Your task to perform on an android device: manage bookmarks in the chrome app Image 0: 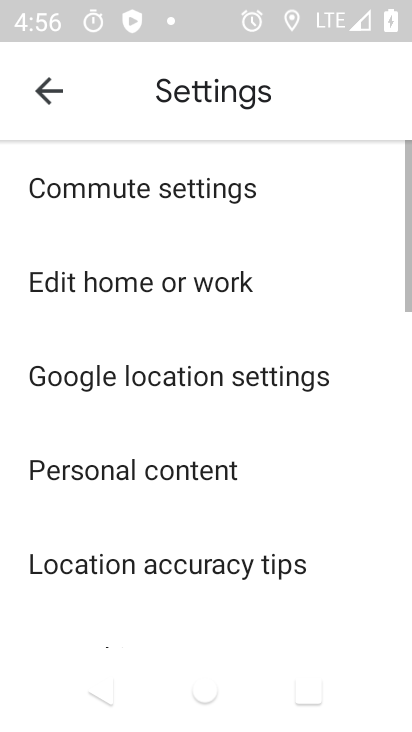
Step 0: press home button
Your task to perform on an android device: manage bookmarks in the chrome app Image 1: 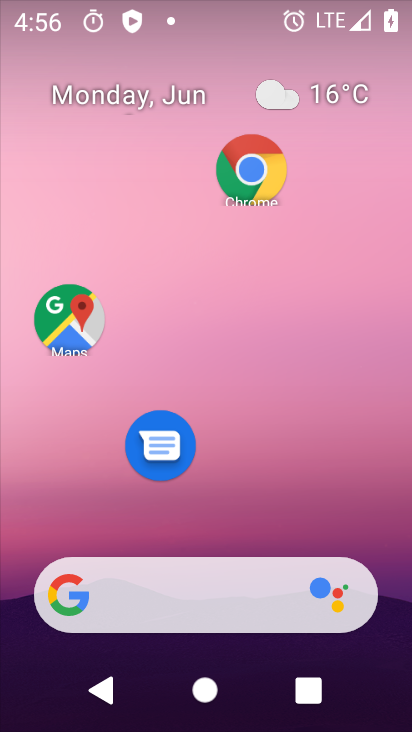
Step 1: click (254, 170)
Your task to perform on an android device: manage bookmarks in the chrome app Image 2: 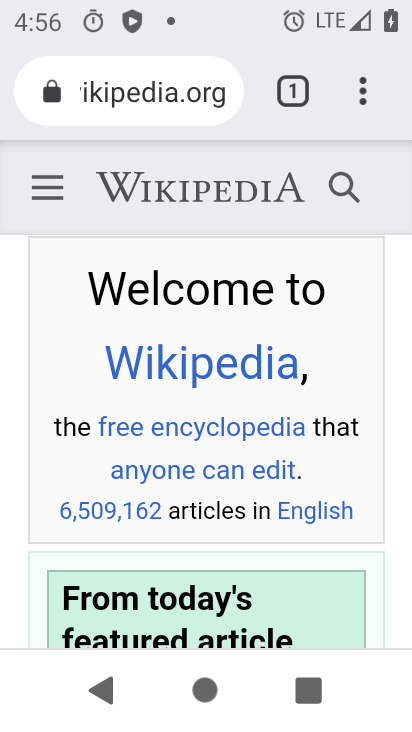
Step 2: click (363, 101)
Your task to perform on an android device: manage bookmarks in the chrome app Image 3: 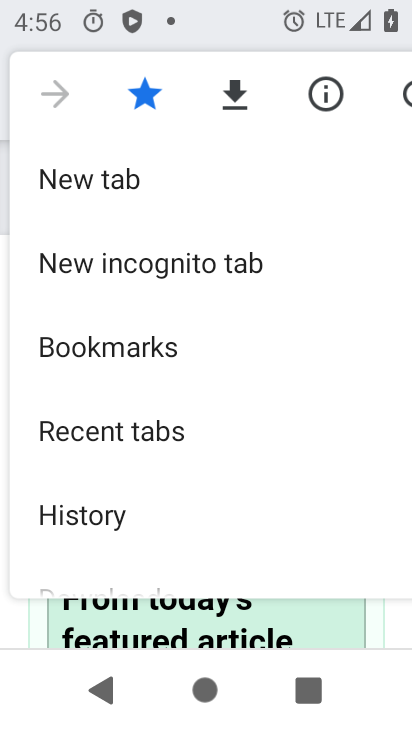
Step 3: click (143, 344)
Your task to perform on an android device: manage bookmarks in the chrome app Image 4: 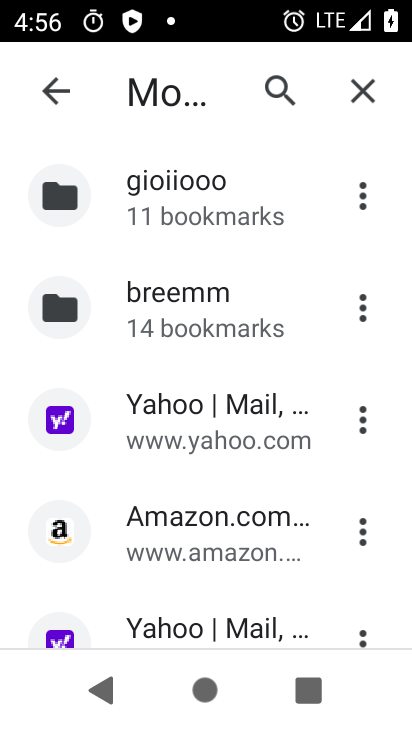
Step 4: click (365, 307)
Your task to perform on an android device: manage bookmarks in the chrome app Image 5: 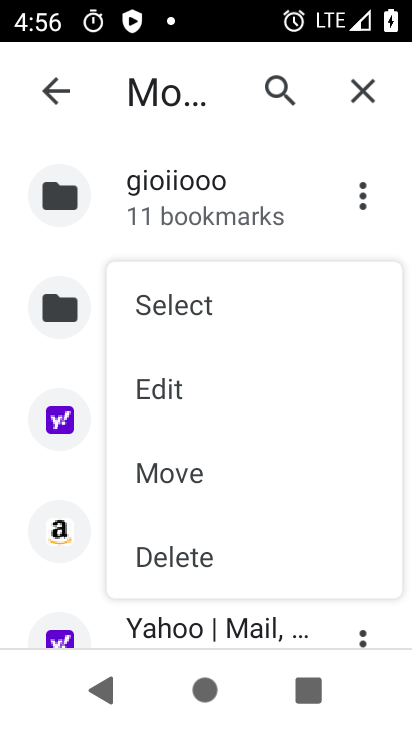
Step 5: click (159, 560)
Your task to perform on an android device: manage bookmarks in the chrome app Image 6: 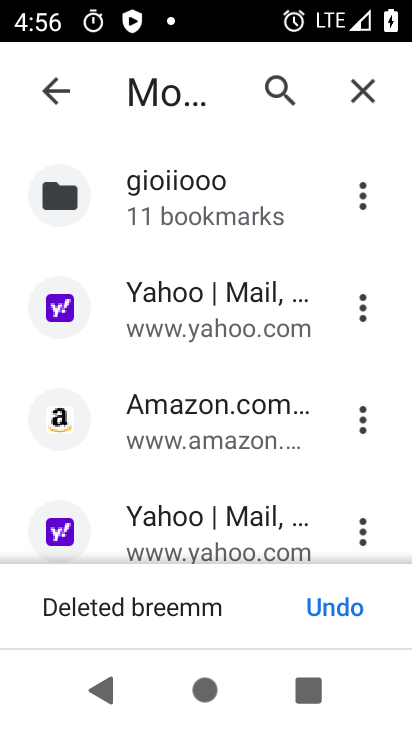
Step 6: task complete